Your task to perform on an android device: toggle wifi Image 0: 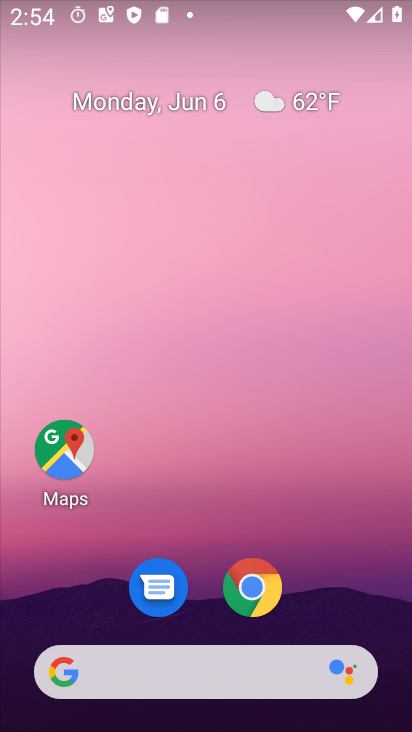
Step 0: drag from (358, 541) to (294, 7)
Your task to perform on an android device: toggle wifi Image 1: 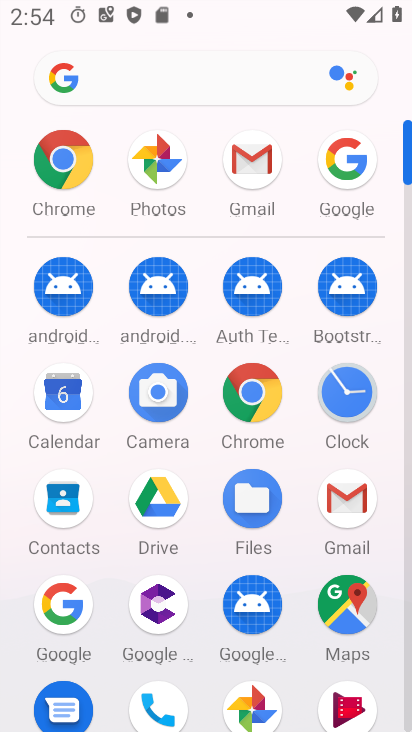
Step 1: click (247, 389)
Your task to perform on an android device: toggle wifi Image 2: 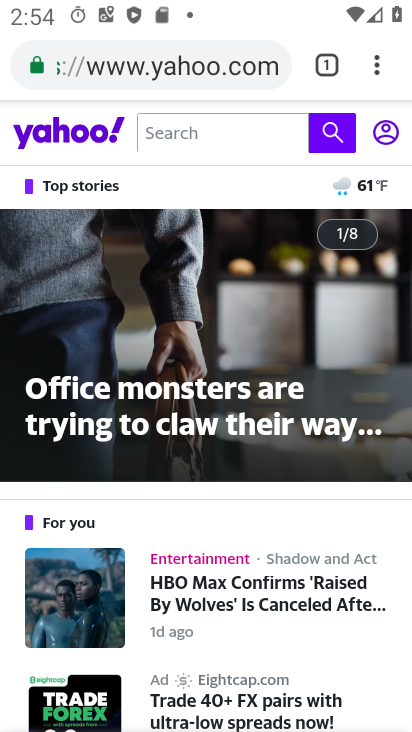
Step 2: click (218, 46)
Your task to perform on an android device: toggle wifi Image 3: 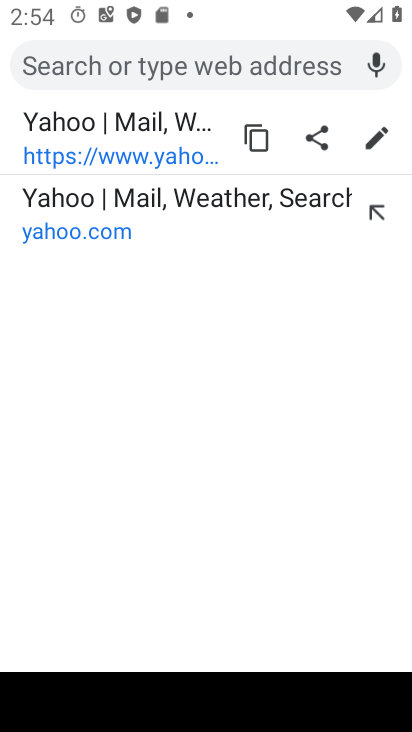
Step 3: press back button
Your task to perform on an android device: toggle wifi Image 4: 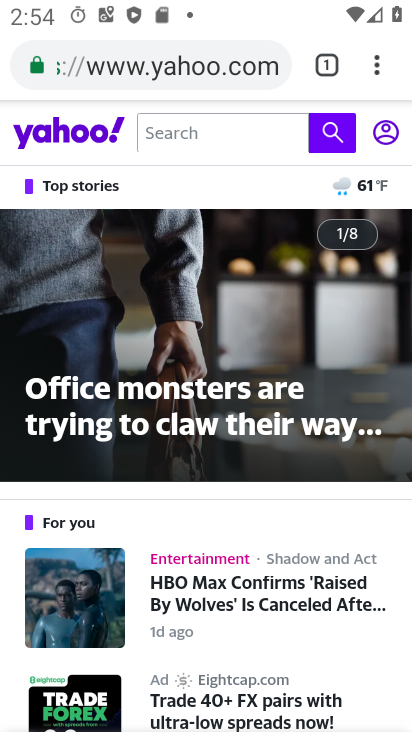
Step 4: press back button
Your task to perform on an android device: toggle wifi Image 5: 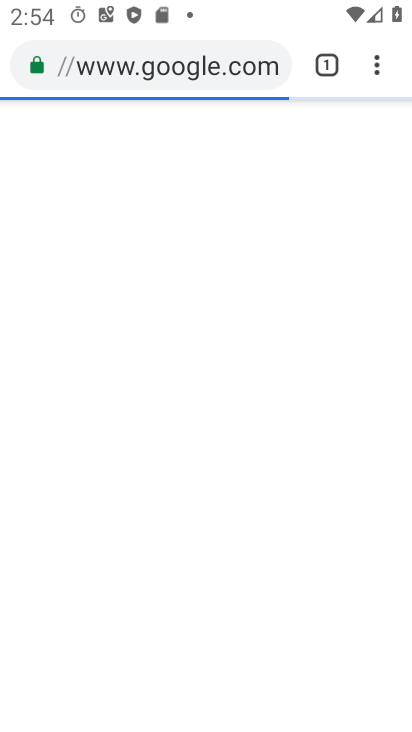
Step 5: press home button
Your task to perform on an android device: toggle wifi Image 6: 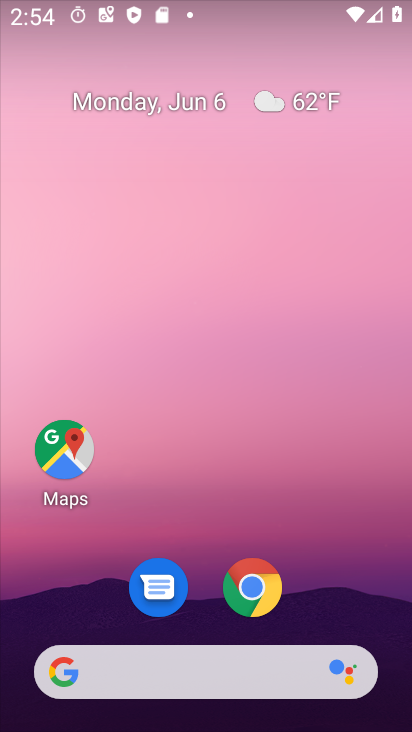
Step 6: drag from (347, 559) to (268, 5)
Your task to perform on an android device: toggle wifi Image 7: 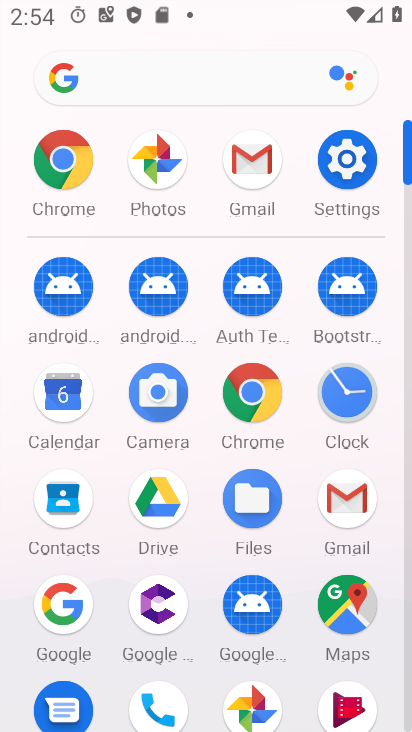
Step 7: click (345, 160)
Your task to perform on an android device: toggle wifi Image 8: 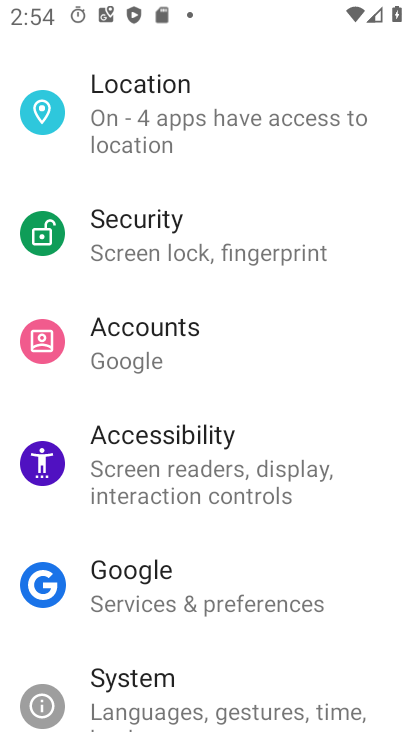
Step 8: drag from (283, 114) to (289, 525)
Your task to perform on an android device: toggle wifi Image 9: 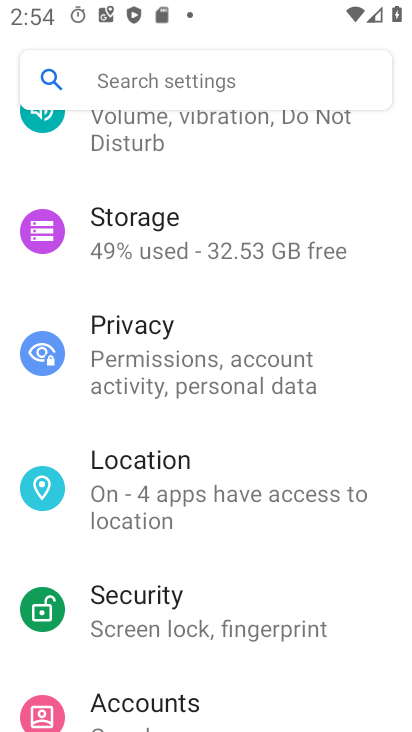
Step 9: drag from (249, 254) to (287, 620)
Your task to perform on an android device: toggle wifi Image 10: 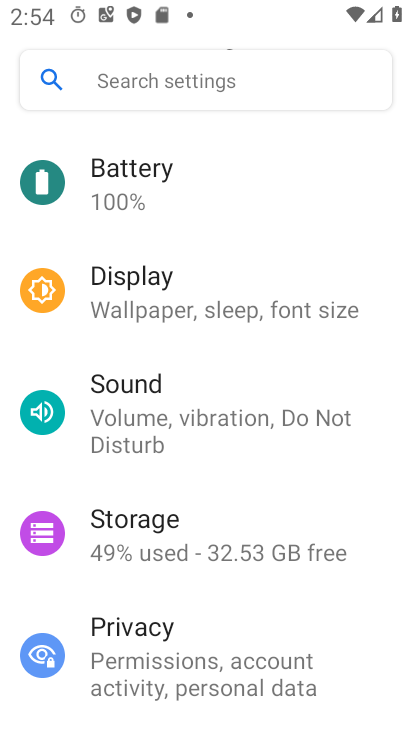
Step 10: drag from (227, 285) to (246, 634)
Your task to perform on an android device: toggle wifi Image 11: 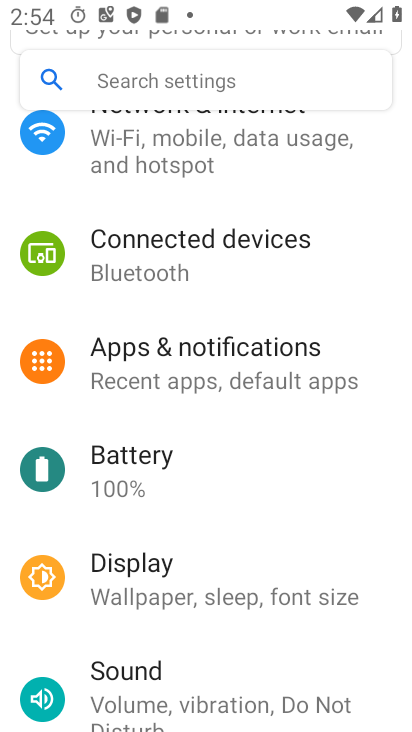
Step 11: drag from (216, 252) to (270, 647)
Your task to perform on an android device: toggle wifi Image 12: 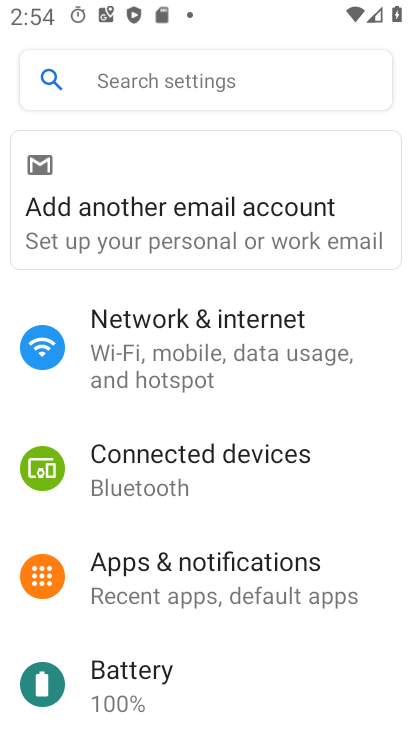
Step 12: click (216, 362)
Your task to perform on an android device: toggle wifi Image 13: 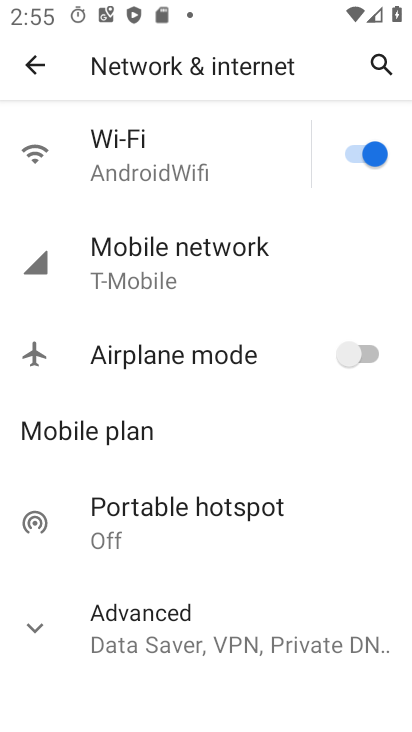
Step 13: click (338, 159)
Your task to perform on an android device: toggle wifi Image 14: 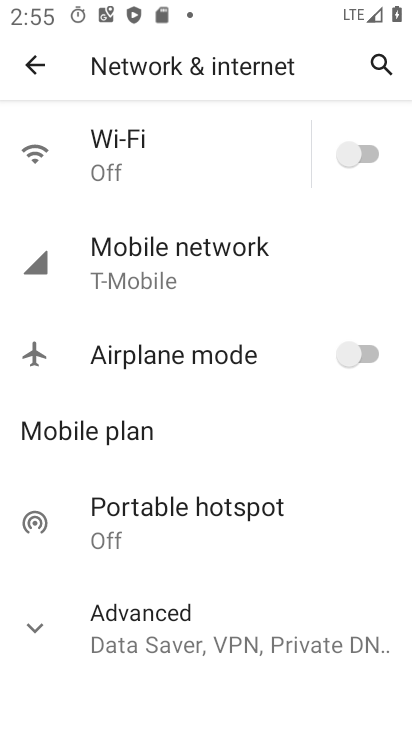
Step 14: task complete